Your task to perform on an android device: delete browsing data in the chrome app Image 0: 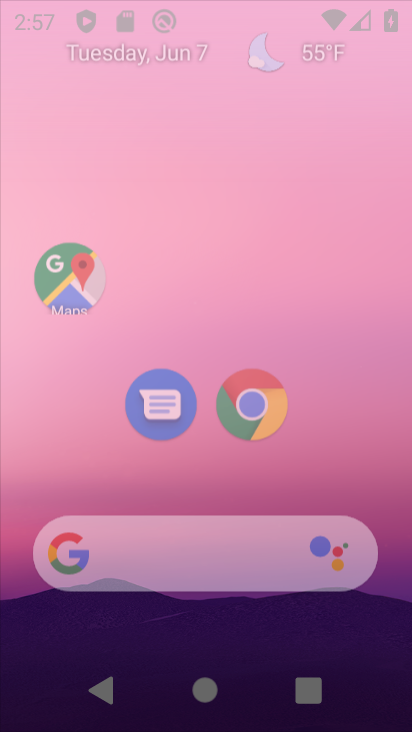
Step 0: press home button
Your task to perform on an android device: delete browsing data in the chrome app Image 1: 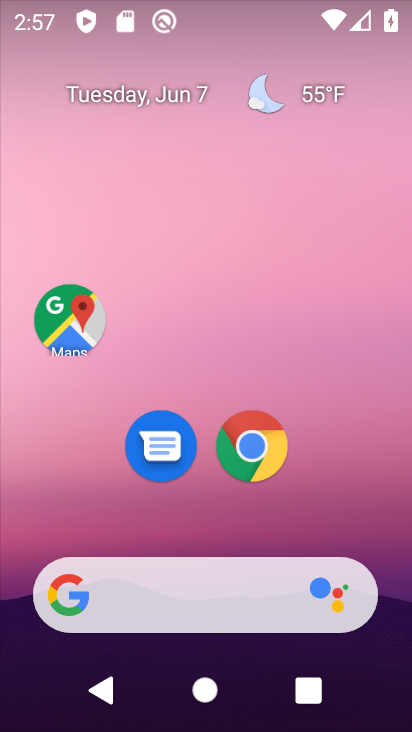
Step 1: press home button
Your task to perform on an android device: delete browsing data in the chrome app Image 2: 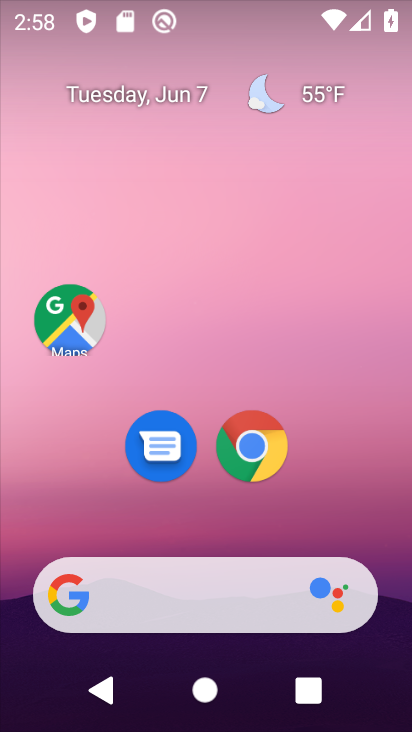
Step 2: click (251, 458)
Your task to perform on an android device: delete browsing data in the chrome app Image 3: 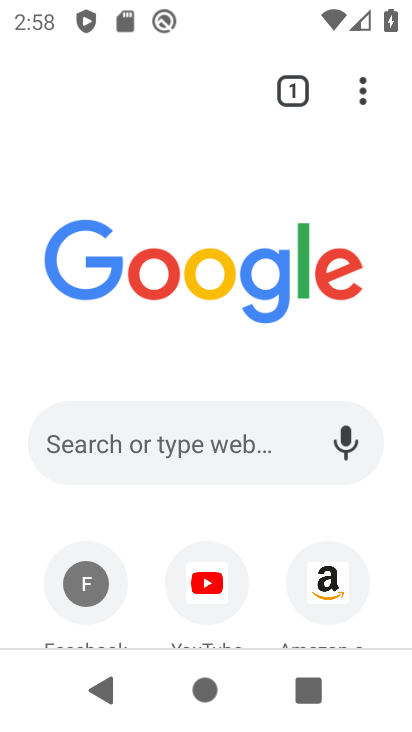
Step 3: drag from (363, 92) to (62, 277)
Your task to perform on an android device: delete browsing data in the chrome app Image 4: 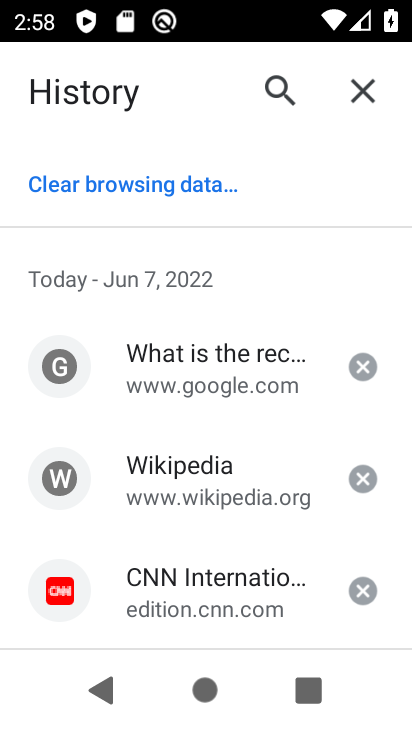
Step 4: click (131, 178)
Your task to perform on an android device: delete browsing data in the chrome app Image 5: 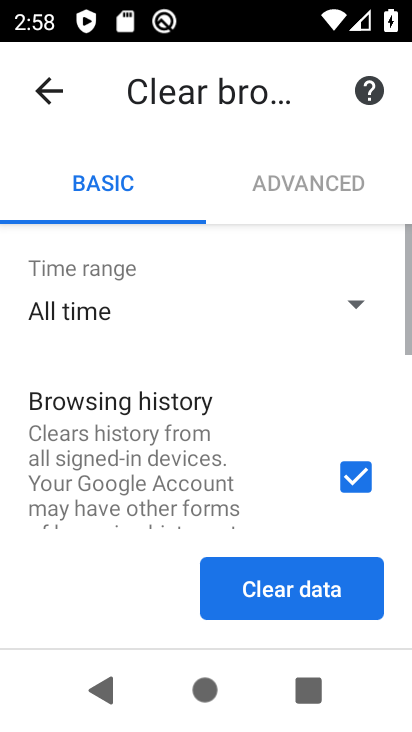
Step 5: click (244, 556)
Your task to perform on an android device: delete browsing data in the chrome app Image 6: 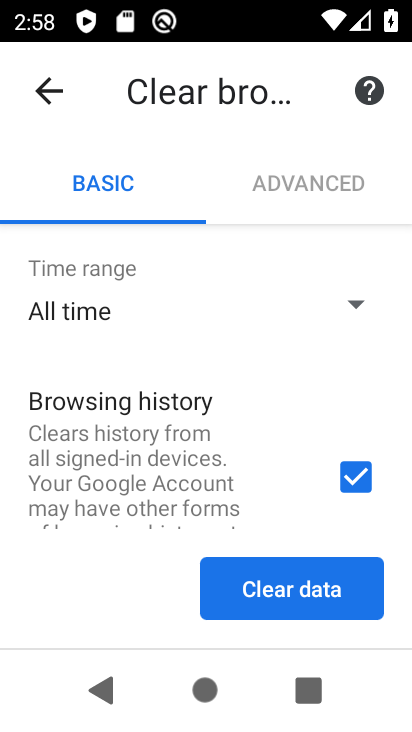
Step 6: click (314, 592)
Your task to perform on an android device: delete browsing data in the chrome app Image 7: 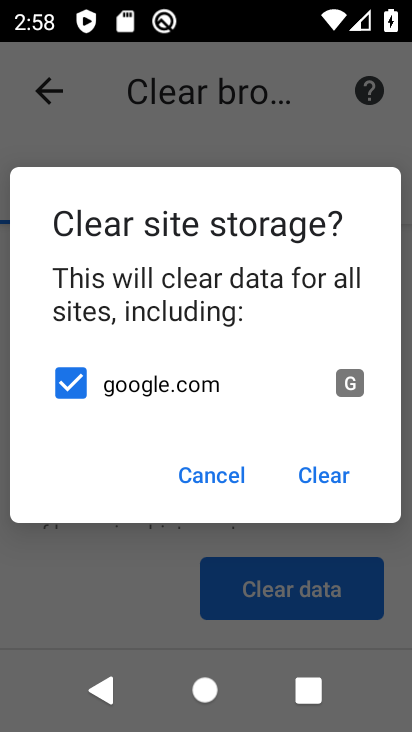
Step 7: click (329, 484)
Your task to perform on an android device: delete browsing data in the chrome app Image 8: 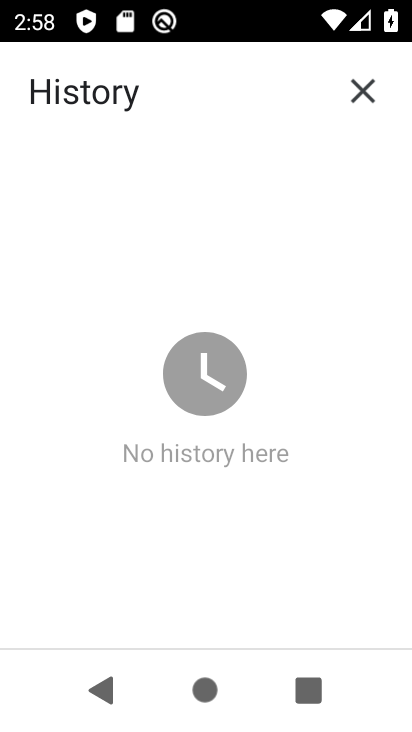
Step 8: task complete